Your task to perform on an android device: Open calendar and show me the first week of next month Image 0: 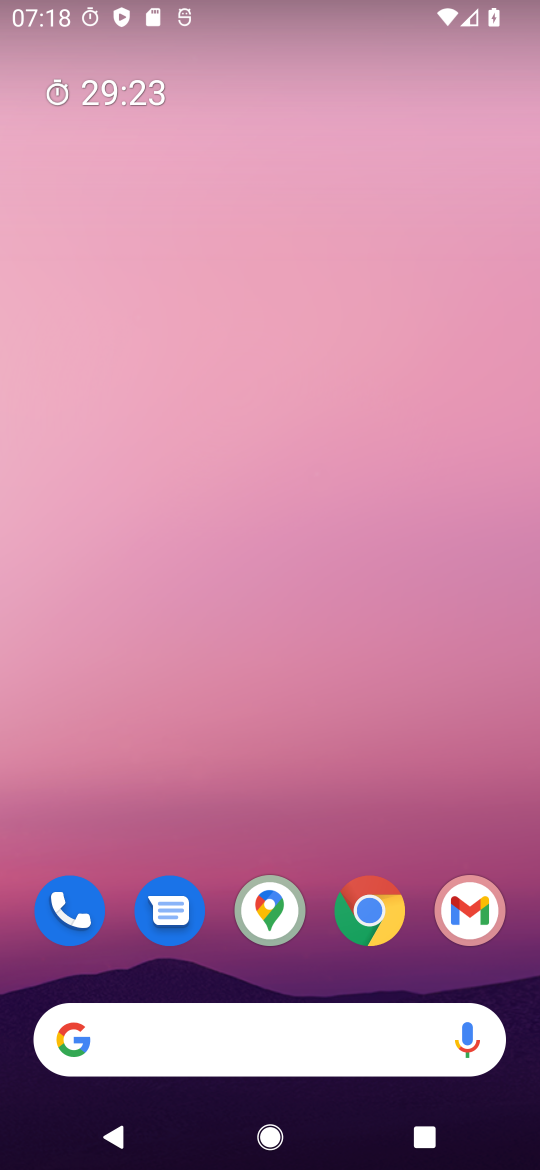
Step 0: drag from (372, 1043) to (297, 2)
Your task to perform on an android device: Open calendar and show me the first week of next month Image 1: 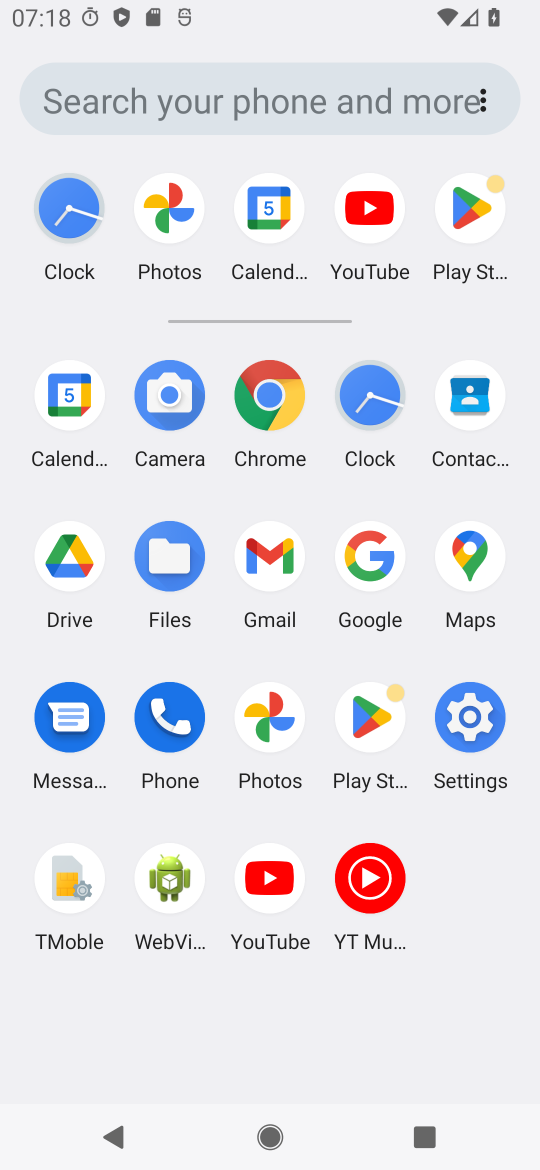
Step 1: click (79, 407)
Your task to perform on an android device: Open calendar and show me the first week of next month Image 2: 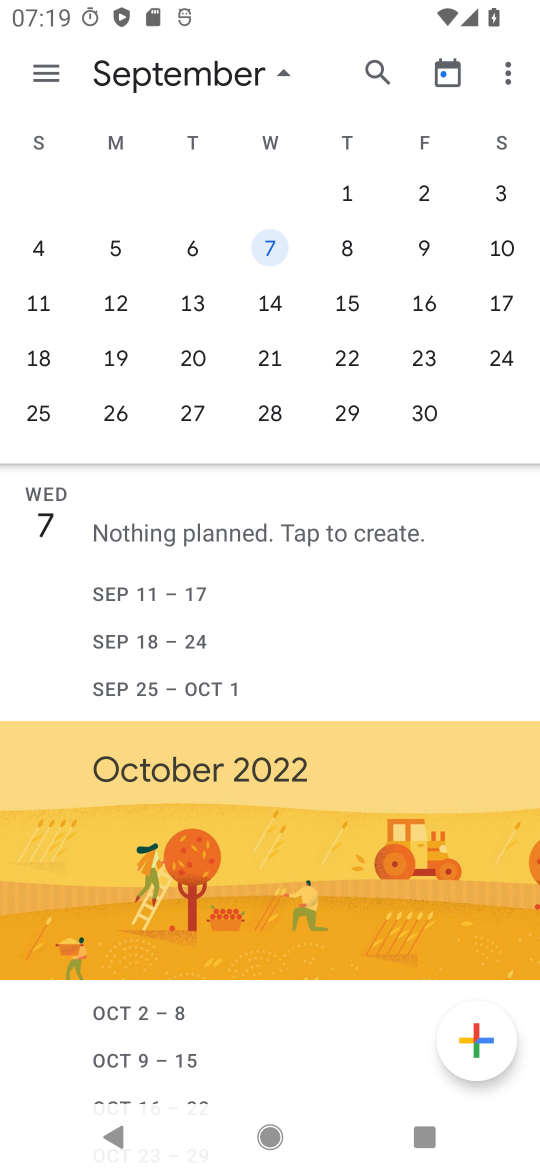
Step 2: click (282, 70)
Your task to perform on an android device: Open calendar and show me the first week of next month Image 3: 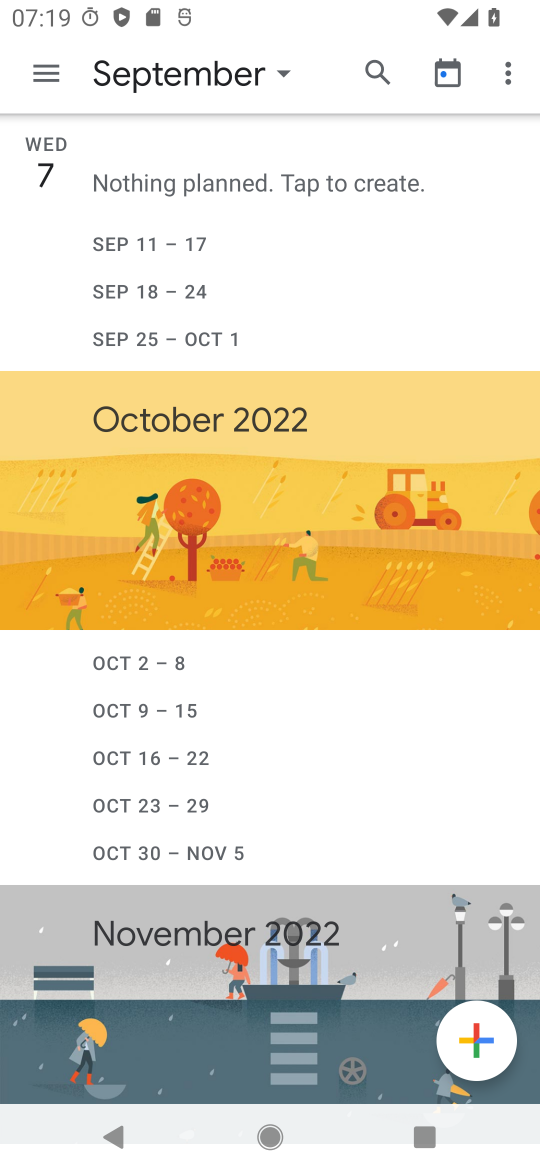
Step 3: click (282, 70)
Your task to perform on an android device: Open calendar and show me the first week of next month Image 4: 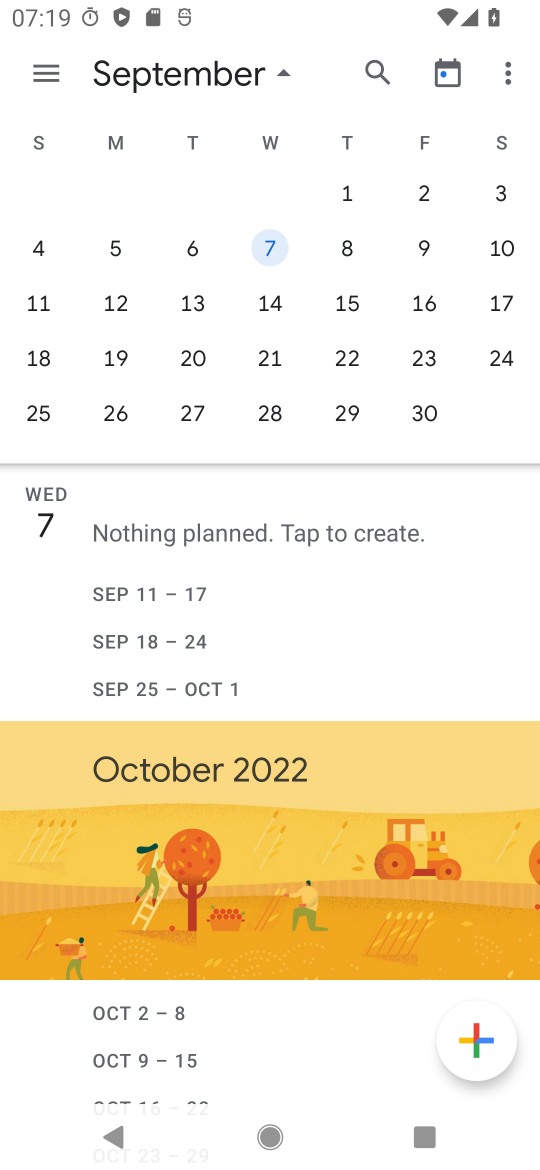
Step 4: click (354, 190)
Your task to perform on an android device: Open calendar and show me the first week of next month Image 5: 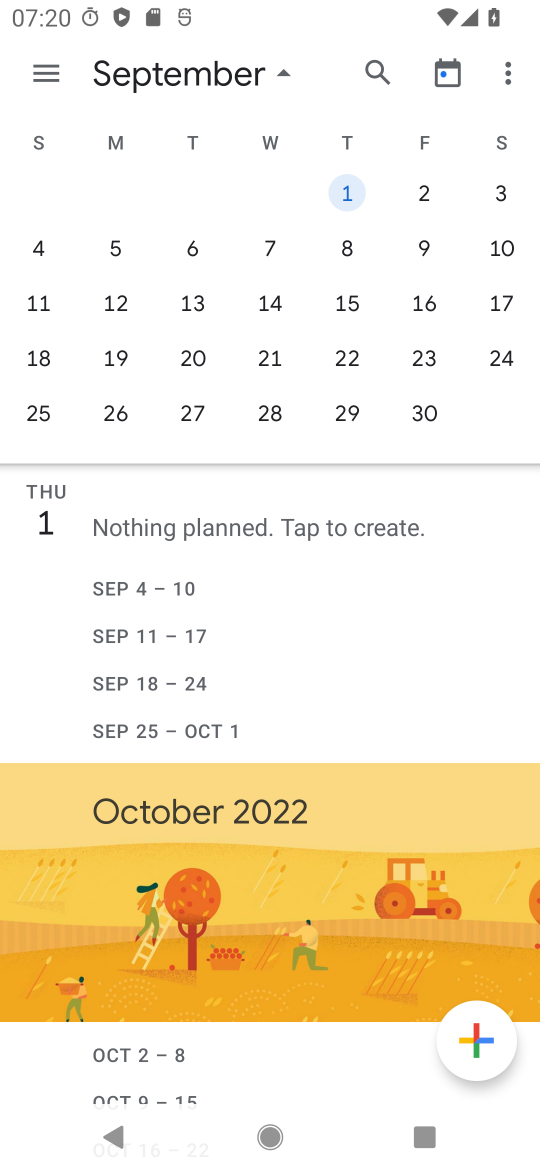
Step 5: task complete